Your task to perform on an android device: Go to Wikipedia Image 0: 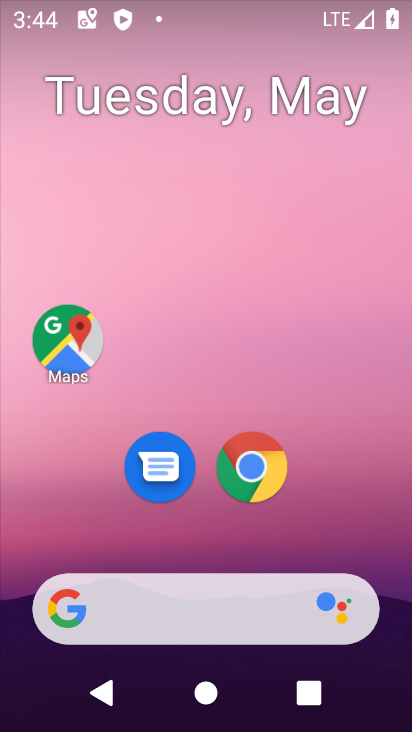
Step 0: click (216, 602)
Your task to perform on an android device: Go to Wikipedia Image 1: 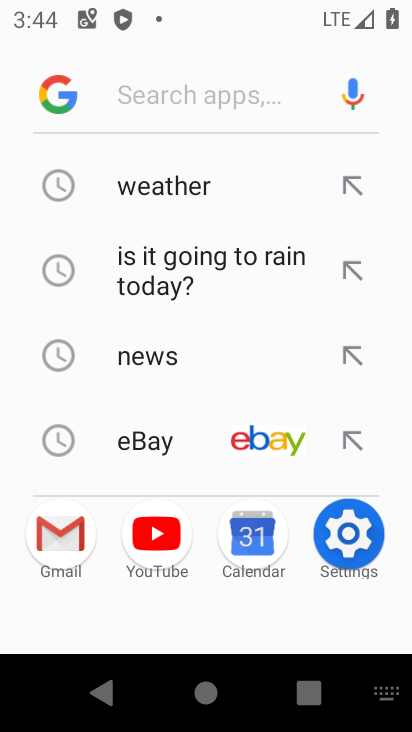
Step 1: type " Wikipedia"
Your task to perform on an android device: Go to Wikipedia Image 2: 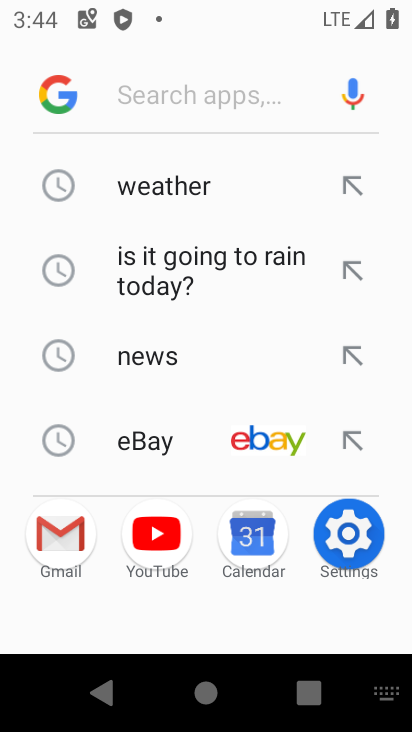
Step 2: click (159, 87)
Your task to perform on an android device: Go to Wikipedia Image 3: 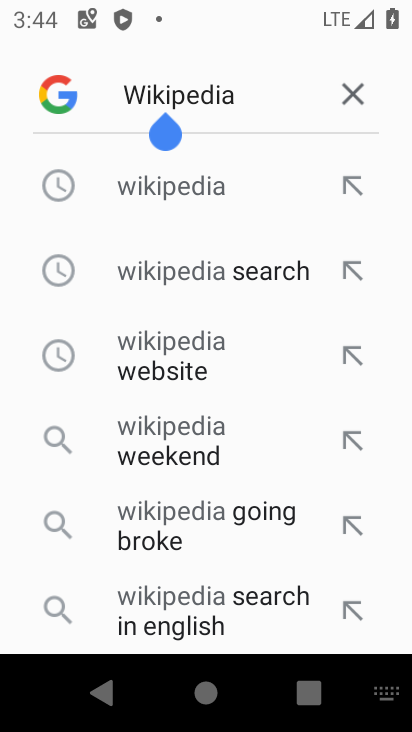
Step 3: click (209, 182)
Your task to perform on an android device: Go to Wikipedia Image 4: 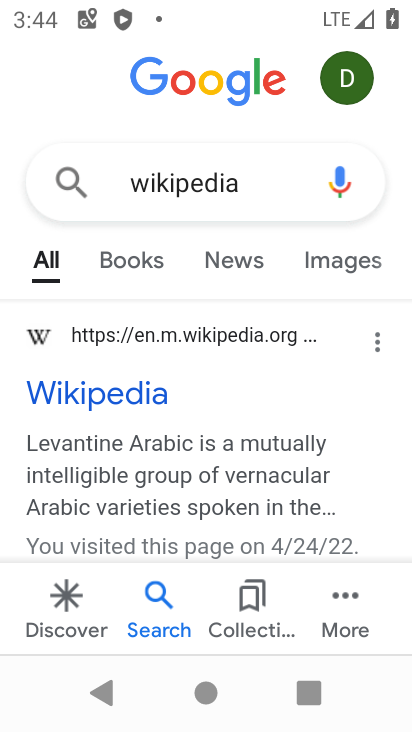
Step 4: click (96, 396)
Your task to perform on an android device: Go to Wikipedia Image 5: 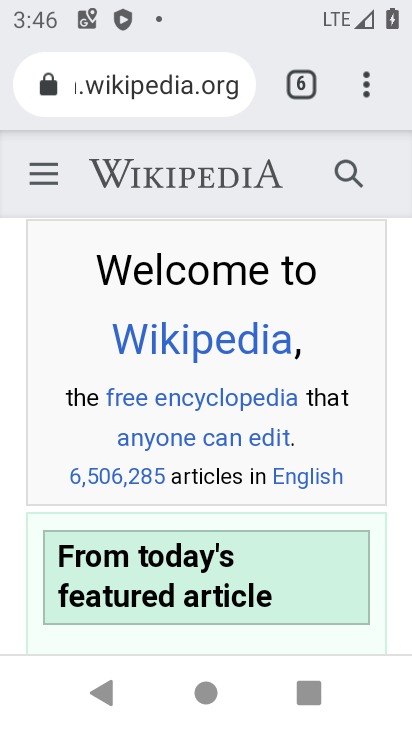
Step 5: task complete